Your task to perform on an android device: Go to network settings Image 0: 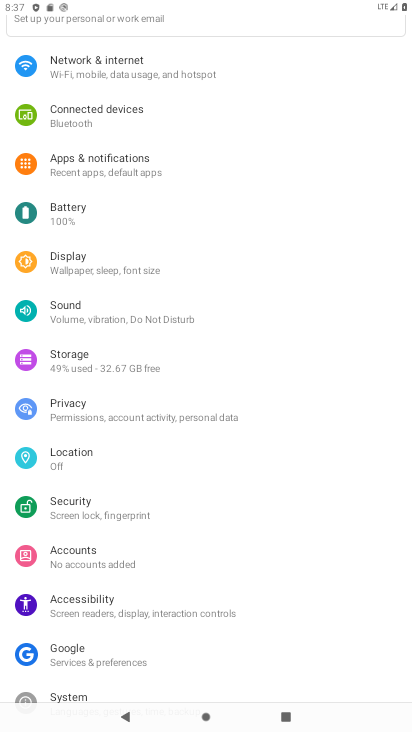
Step 0: click (94, 69)
Your task to perform on an android device: Go to network settings Image 1: 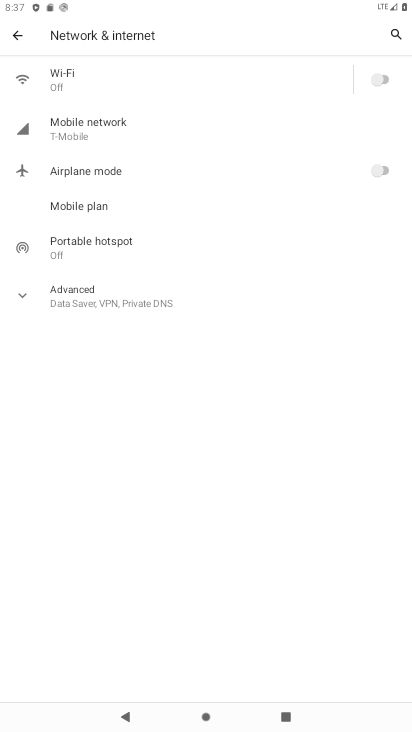
Step 1: task complete